Your task to perform on an android device: Go to network settings Image 0: 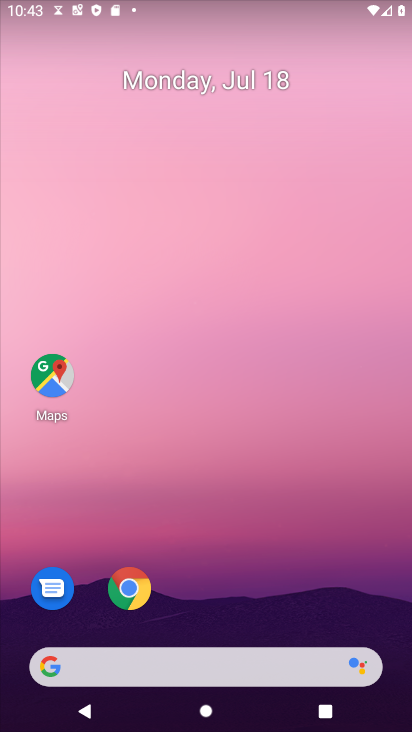
Step 0: drag from (232, 728) to (254, 128)
Your task to perform on an android device: Go to network settings Image 1: 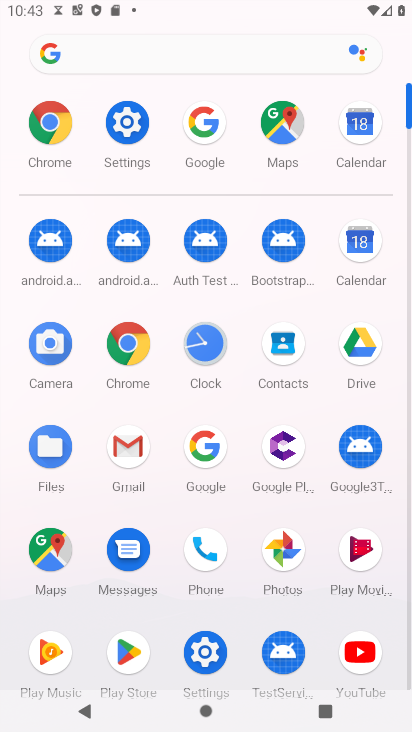
Step 1: click (123, 116)
Your task to perform on an android device: Go to network settings Image 2: 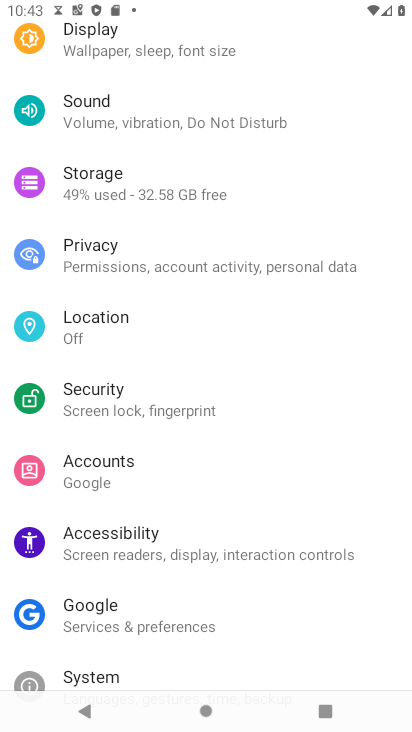
Step 2: drag from (155, 98) to (155, 616)
Your task to perform on an android device: Go to network settings Image 3: 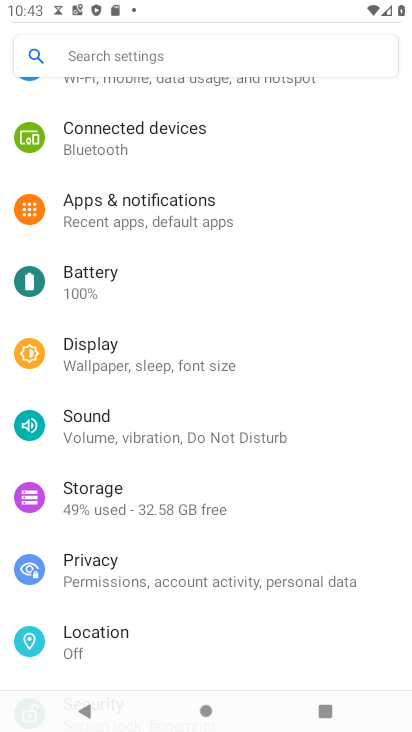
Step 3: drag from (155, 157) to (155, 356)
Your task to perform on an android device: Go to network settings Image 4: 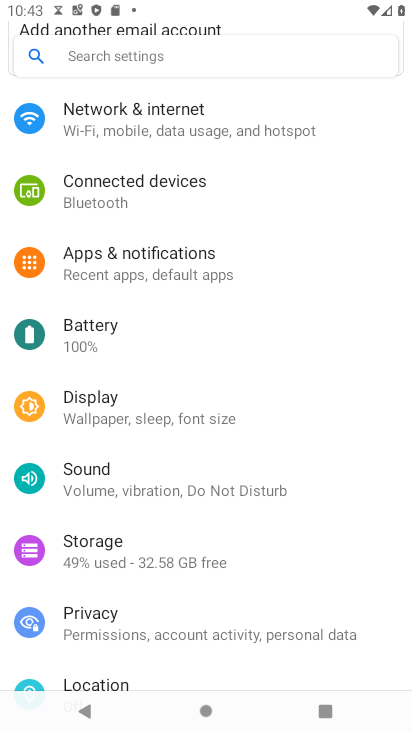
Step 4: click (159, 575)
Your task to perform on an android device: Go to network settings Image 5: 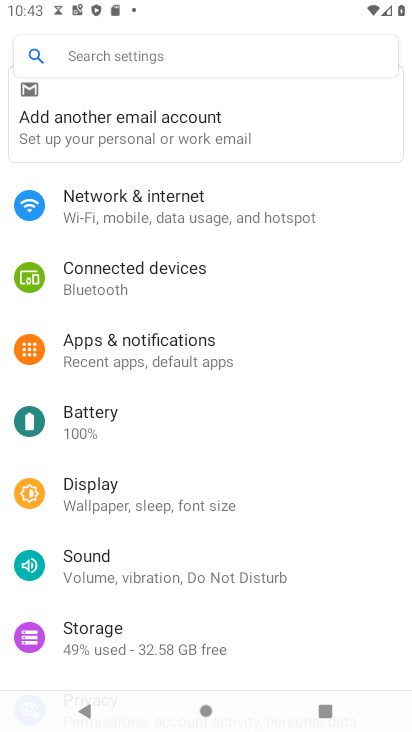
Step 5: click (120, 213)
Your task to perform on an android device: Go to network settings Image 6: 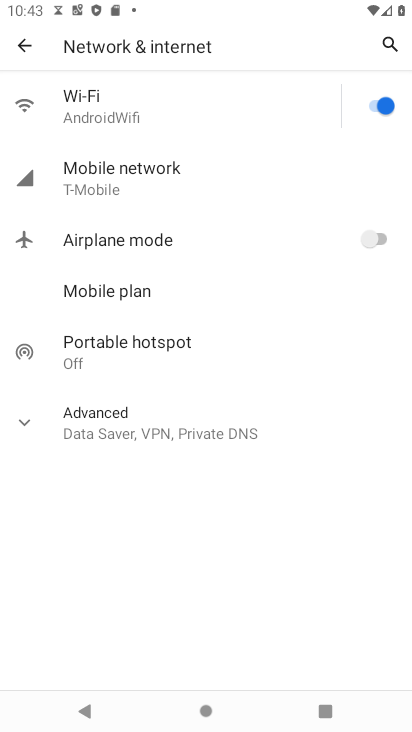
Step 6: click (103, 162)
Your task to perform on an android device: Go to network settings Image 7: 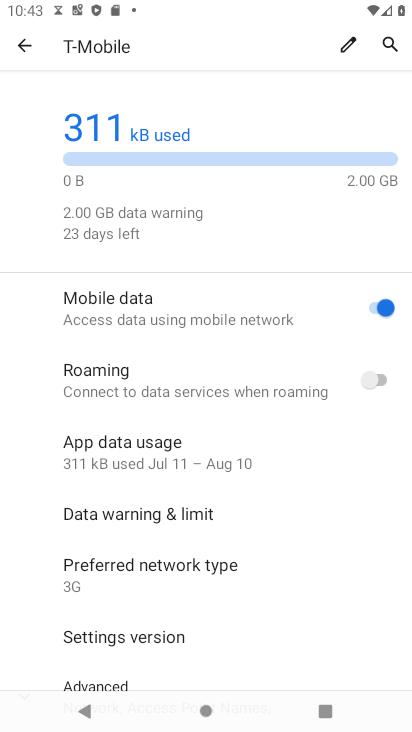
Step 7: task complete